Your task to perform on an android device: turn vacation reply on in the gmail app Image 0: 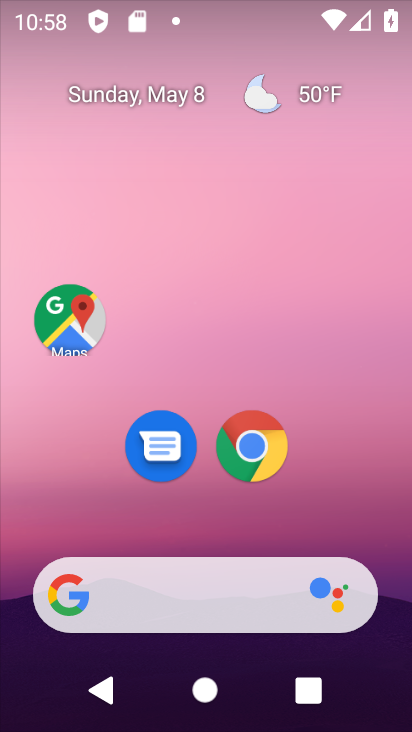
Step 0: drag from (243, 531) to (239, 6)
Your task to perform on an android device: turn vacation reply on in the gmail app Image 1: 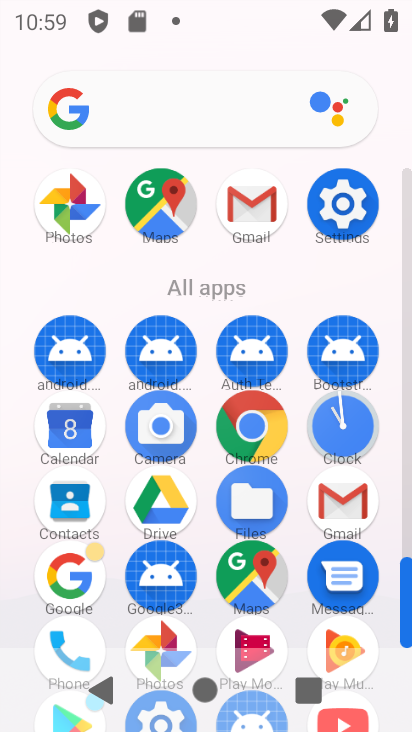
Step 1: click (332, 507)
Your task to perform on an android device: turn vacation reply on in the gmail app Image 2: 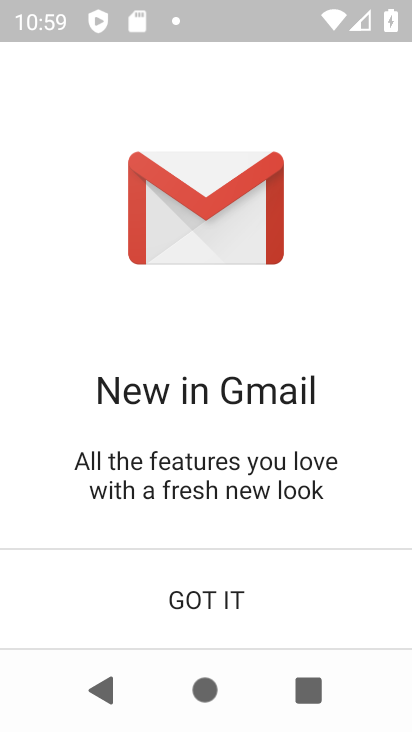
Step 2: click (234, 608)
Your task to perform on an android device: turn vacation reply on in the gmail app Image 3: 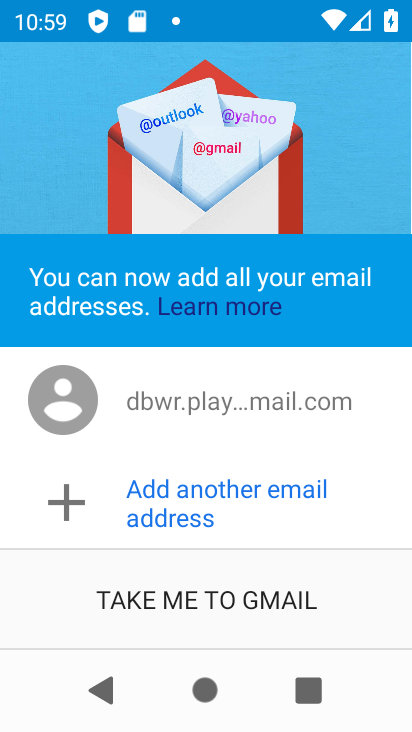
Step 3: click (234, 608)
Your task to perform on an android device: turn vacation reply on in the gmail app Image 4: 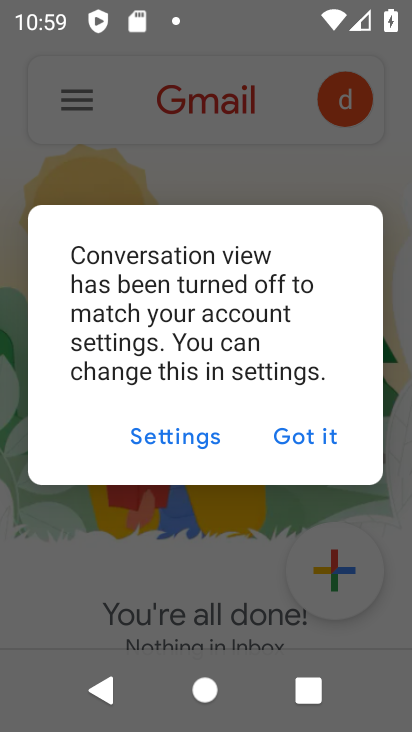
Step 4: click (270, 437)
Your task to perform on an android device: turn vacation reply on in the gmail app Image 5: 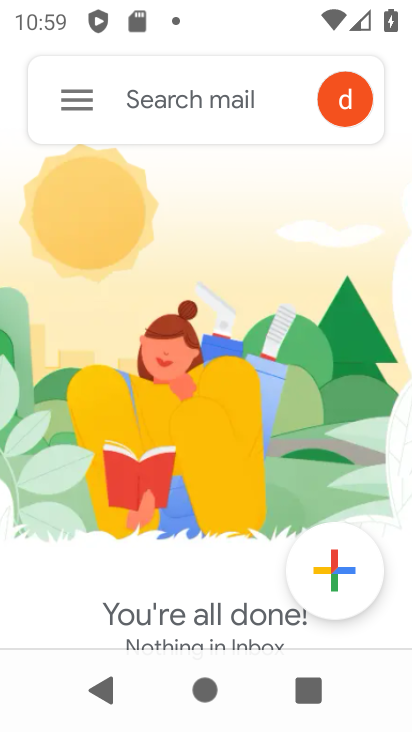
Step 5: click (84, 90)
Your task to perform on an android device: turn vacation reply on in the gmail app Image 6: 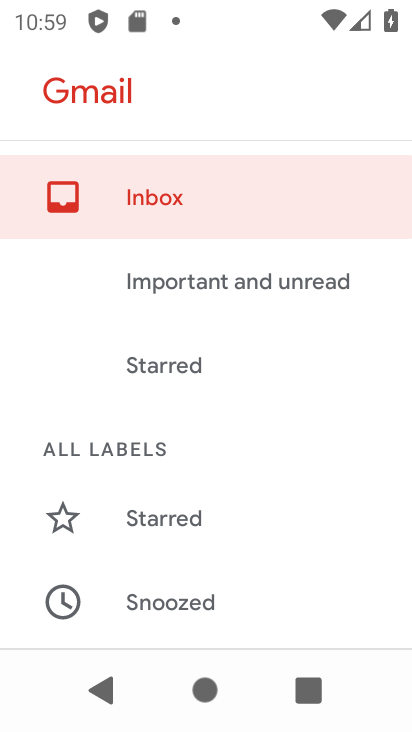
Step 6: drag from (215, 495) to (197, 350)
Your task to perform on an android device: turn vacation reply on in the gmail app Image 7: 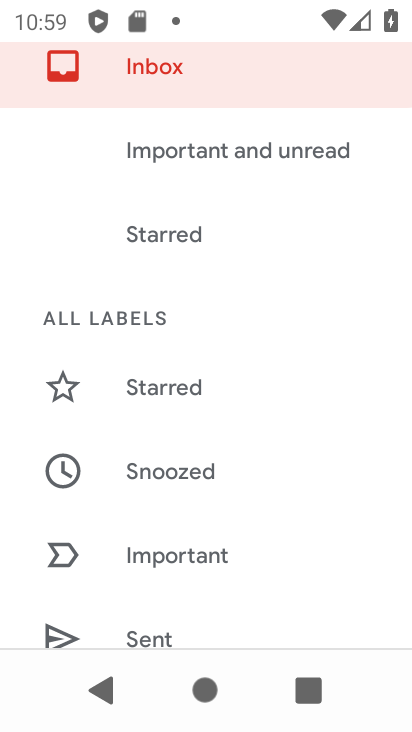
Step 7: drag from (220, 573) to (218, 310)
Your task to perform on an android device: turn vacation reply on in the gmail app Image 8: 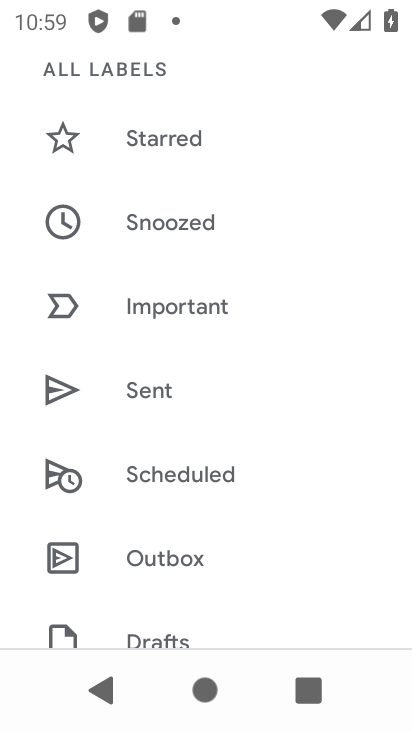
Step 8: drag from (229, 503) to (234, 222)
Your task to perform on an android device: turn vacation reply on in the gmail app Image 9: 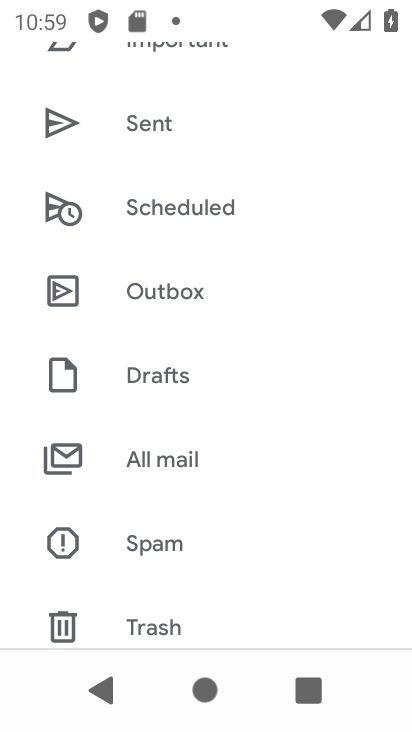
Step 9: drag from (205, 557) to (186, 265)
Your task to perform on an android device: turn vacation reply on in the gmail app Image 10: 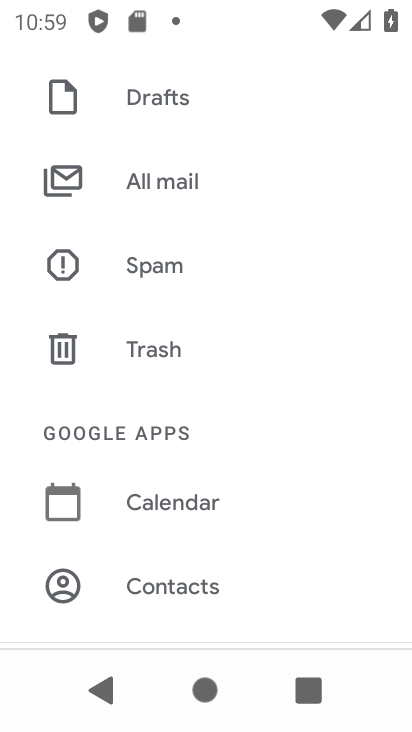
Step 10: drag from (263, 565) to (208, 336)
Your task to perform on an android device: turn vacation reply on in the gmail app Image 11: 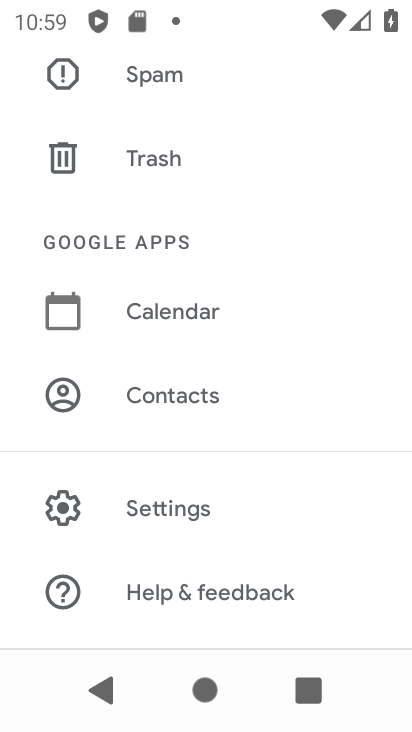
Step 11: click (224, 529)
Your task to perform on an android device: turn vacation reply on in the gmail app Image 12: 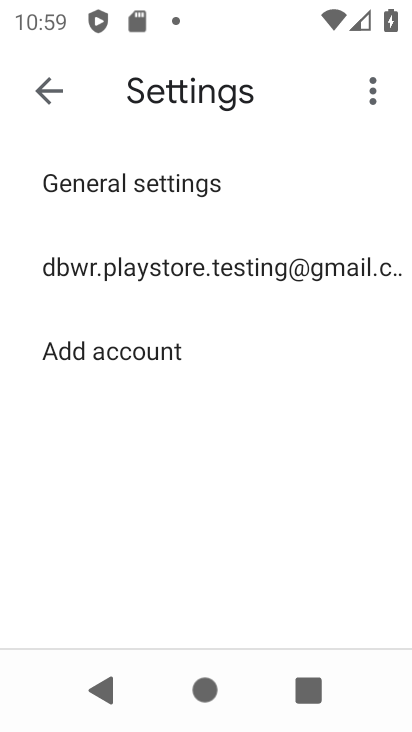
Step 12: click (134, 249)
Your task to perform on an android device: turn vacation reply on in the gmail app Image 13: 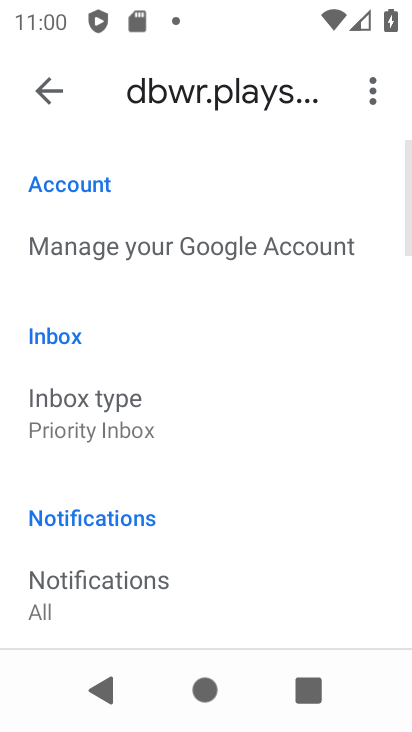
Step 13: drag from (163, 603) to (164, 456)
Your task to perform on an android device: turn vacation reply on in the gmail app Image 14: 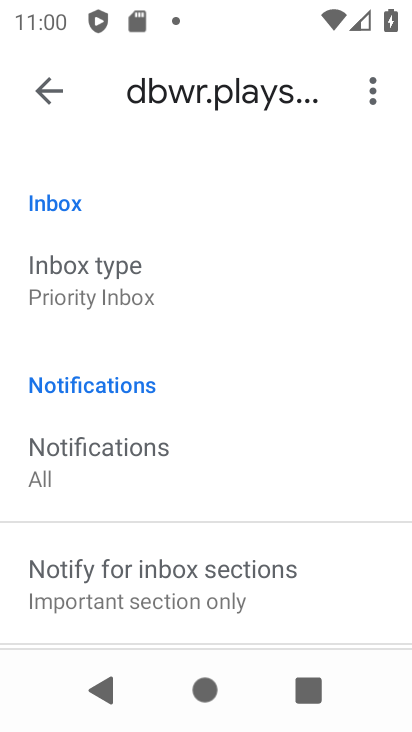
Step 14: drag from (158, 601) to (131, 456)
Your task to perform on an android device: turn vacation reply on in the gmail app Image 15: 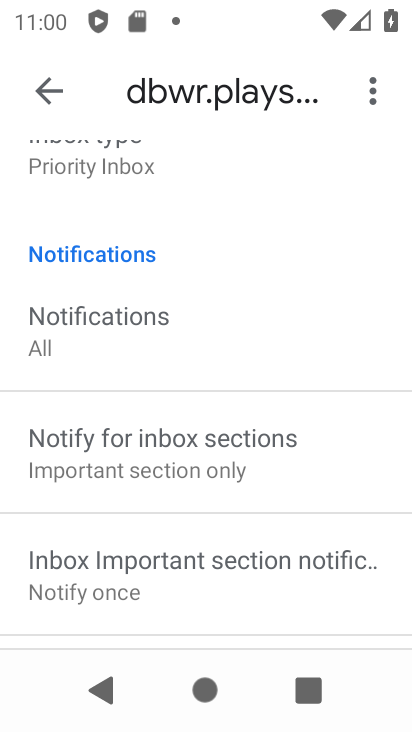
Step 15: drag from (167, 593) to (142, 466)
Your task to perform on an android device: turn vacation reply on in the gmail app Image 16: 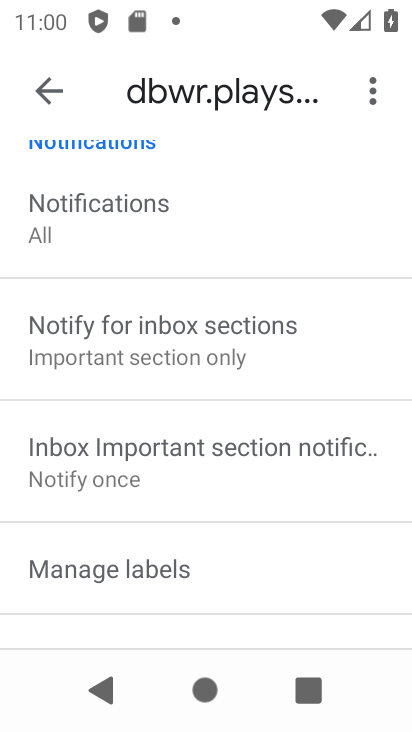
Step 16: drag from (147, 572) to (117, 421)
Your task to perform on an android device: turn vacation reply on in the gmail app Image 17: 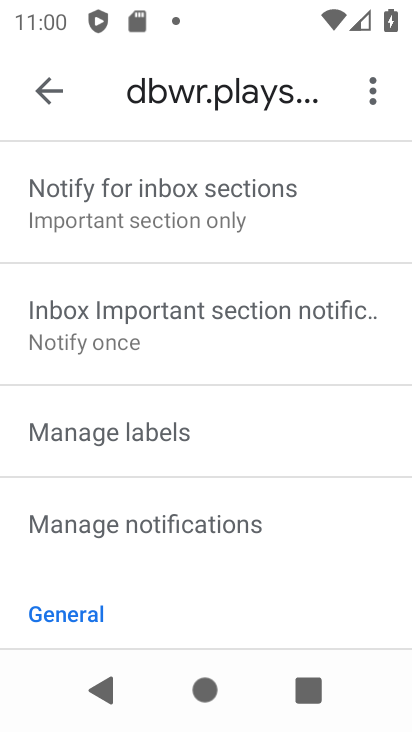
Step 17: drag from (142, 563) to (134, 422)
Your task to perform on an android device: turn vacation reply on in the gmail app Image 18: 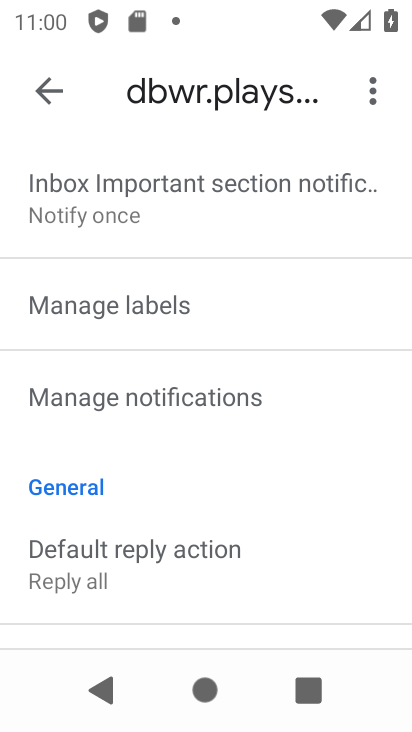
Step 18: drag from (170, 571) to (154, 440)
Your task to perform on an android device: turn vacation reply on in the gmail app Image 19: 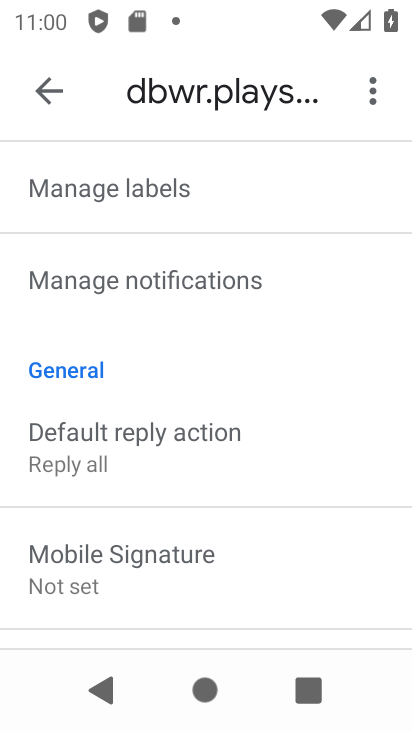
Step 19: drag from (181, 550) to (165, 412)
Your task to perform on an android device: turn vacation reply on in the gmail app Image 20: 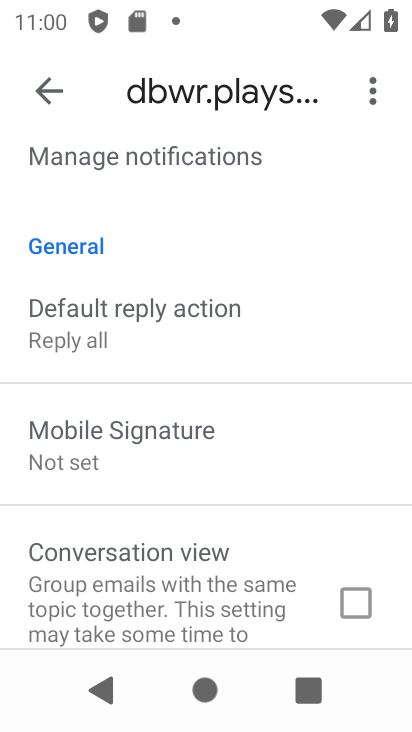
Step 20: drag from (182, 538) to (167, 406)
Your task to perform on an android device: turn vacation reply on in the gmail app Image 21: 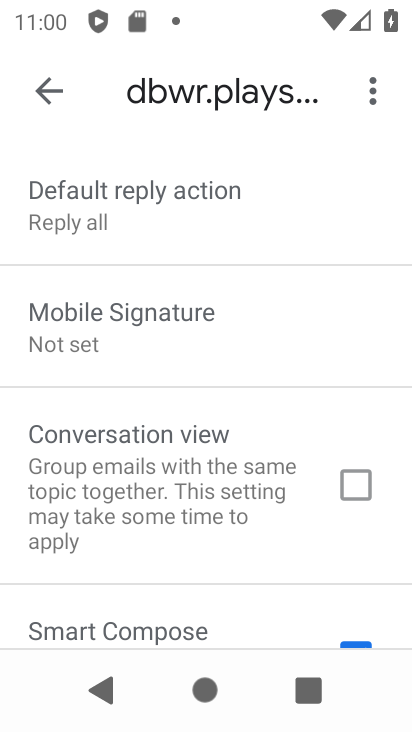
Step 21: drag from (175, 531) to (167, 395)
Your task to perform on an android device: turn vacation reply on in the gmail app Image 22: 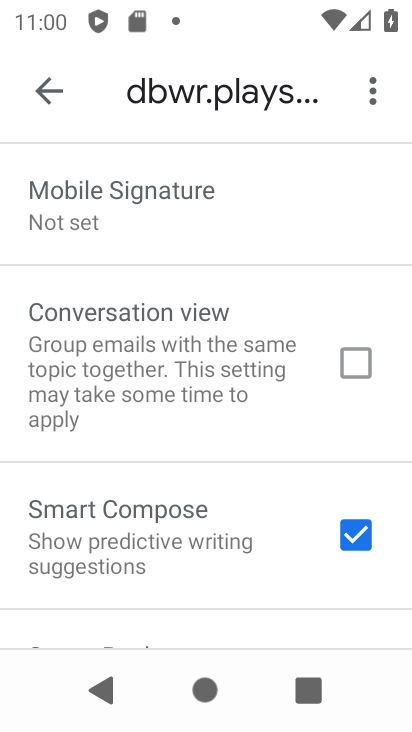
Step 22: drag from (204, 545) to (186, 403)
Your task to perform on an android device: turn vacation reply on in the gmail app Image 23: 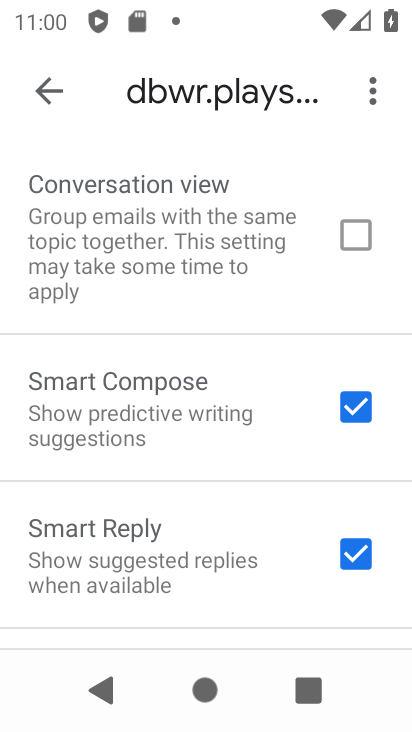
Step 23: drag from (211, 569) to (189, 343)
Your task to perform on an android device: turn vacation reply on in the gmail app Image 24: 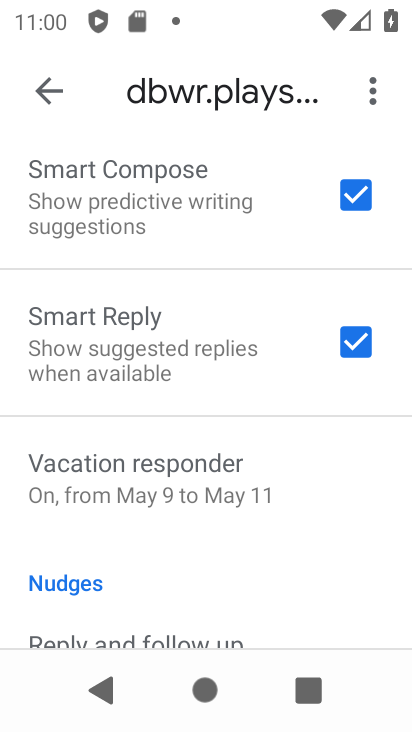
Step 24: click (221, 495)
Your task to perform on an android device: turn vacation reply on in the gmail app Image 25: 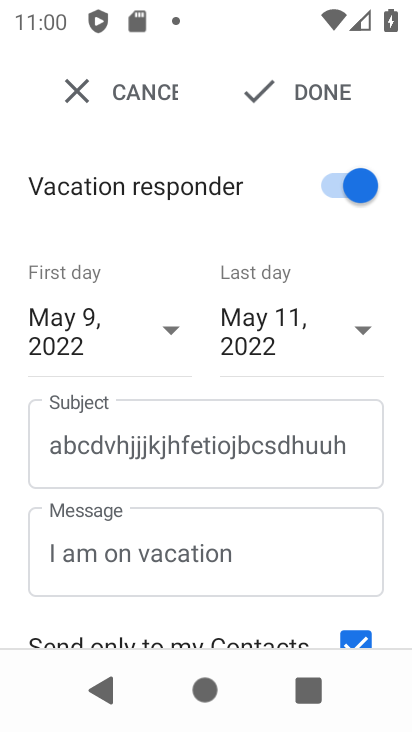
Step 25: click (308, 88)
Your task to perform on an android device: turn vacation reply on in the gmail app Image 26: 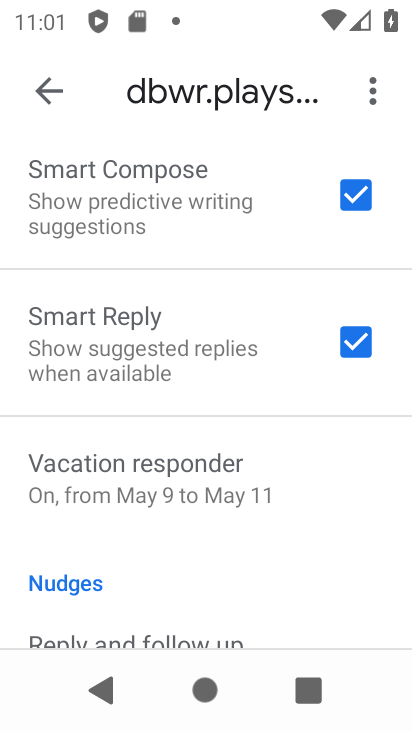
Step 26: task complete